Your task to perform on an android device: open app "Move to iOS" Image 0: 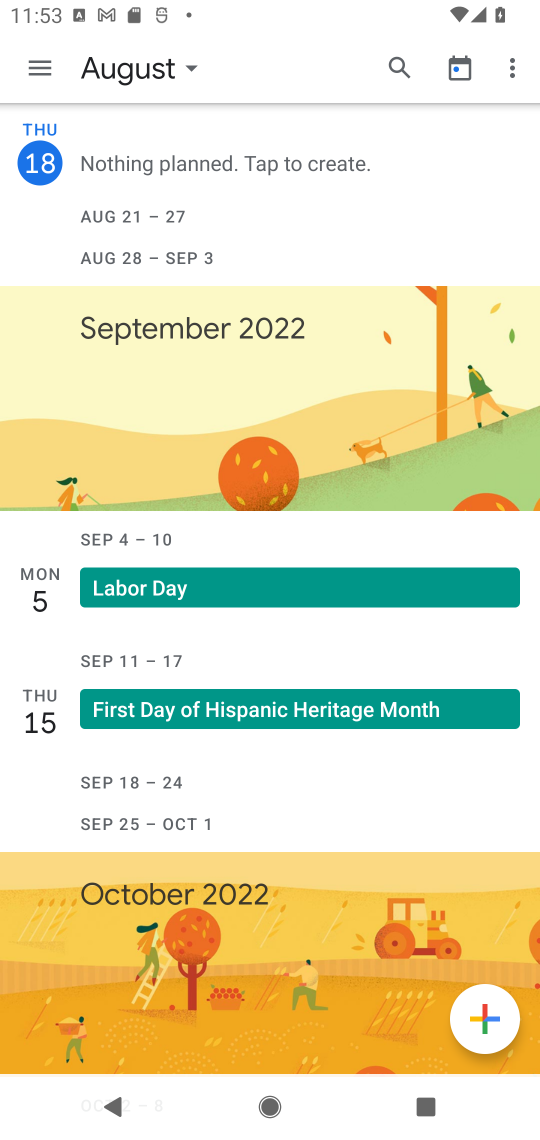
Step 0: press home button
Your task to perform on an android device: open app "Move to iOS" Image 1: 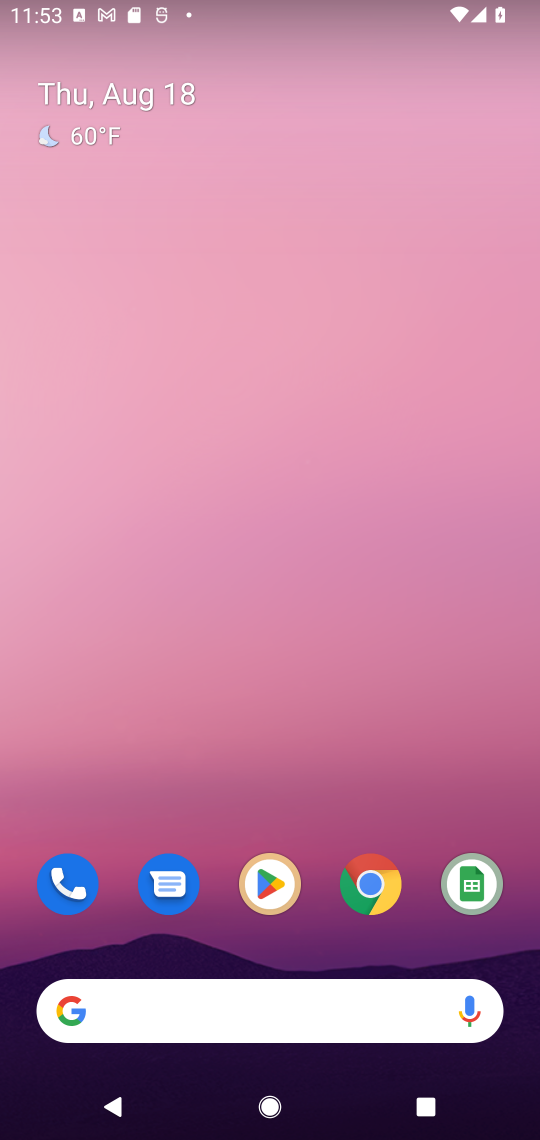
Step 1: drag from (183, 1028) to (185, 159)
Your task to perform on an android device: open app "Move to iOS" Image 2: 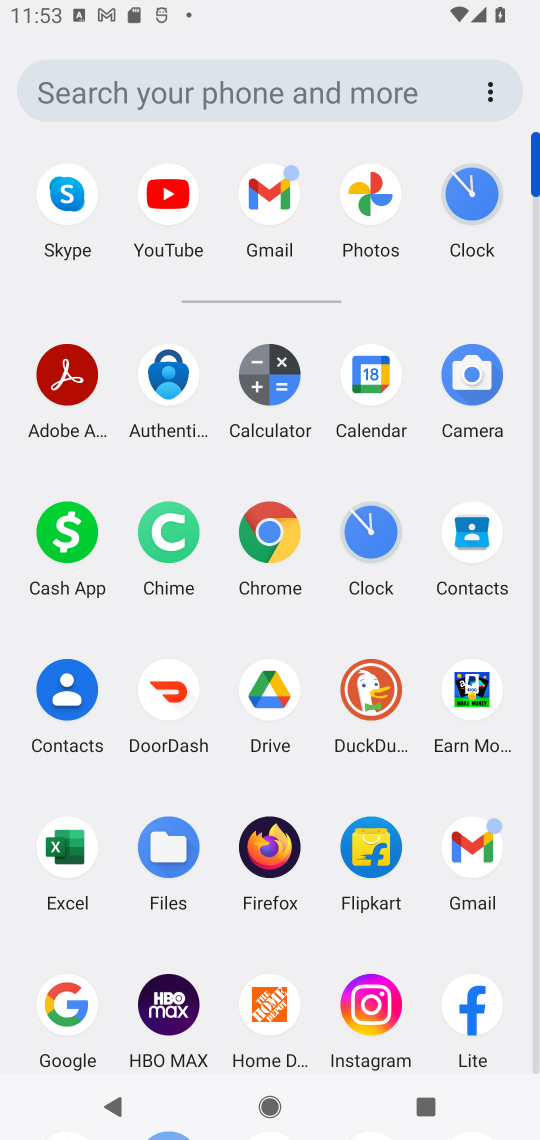
Step 2: drag from (390, 952) to (386, 431)
Your task to perform on an android device: open app "Move to iOS" Image 3: 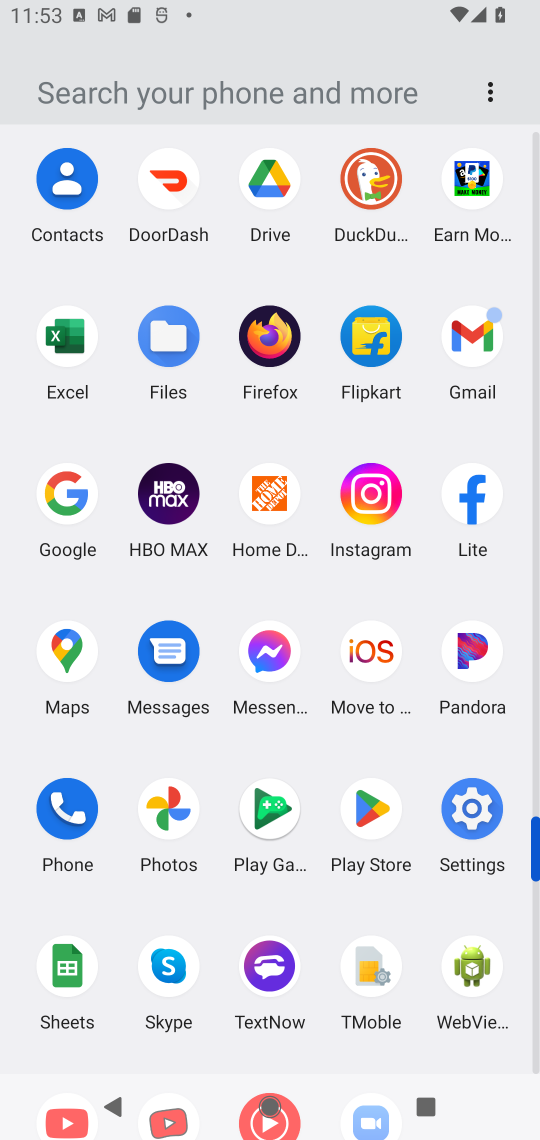
Step 3: click (373, 646)
Your task to perform on an android device: open app "Move to iOS" Image 4: 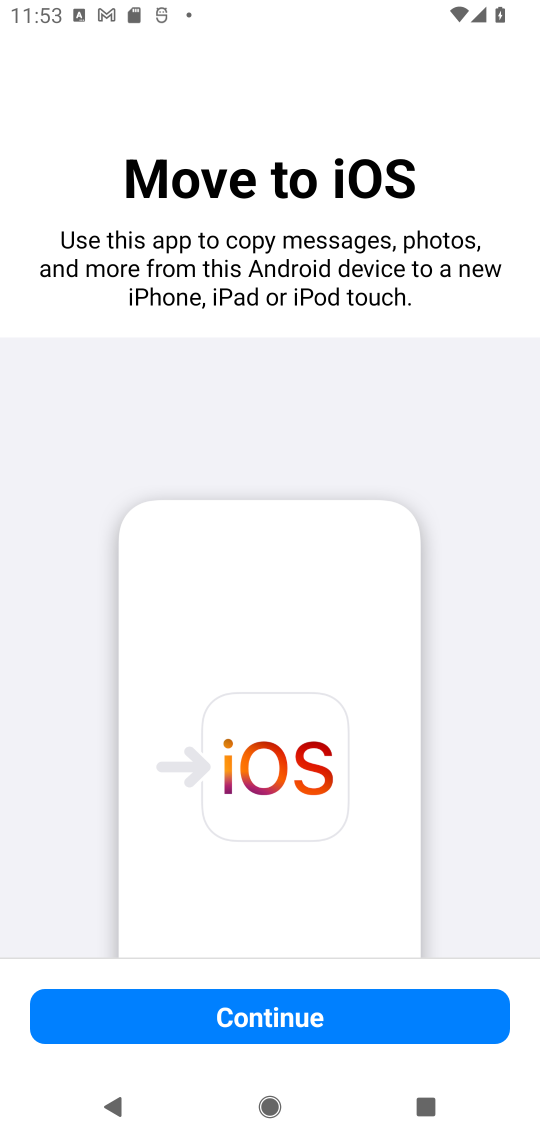
Step 4: task complete